Your task to perform on an android device: Do I have any events tomorrow? Image 0: 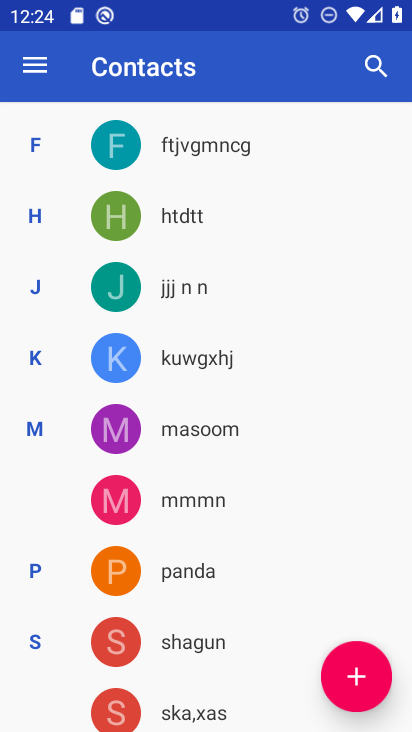
Step 0: press home button
Your task to perform on an android device: Do I have any events tomorrow? Image 1: 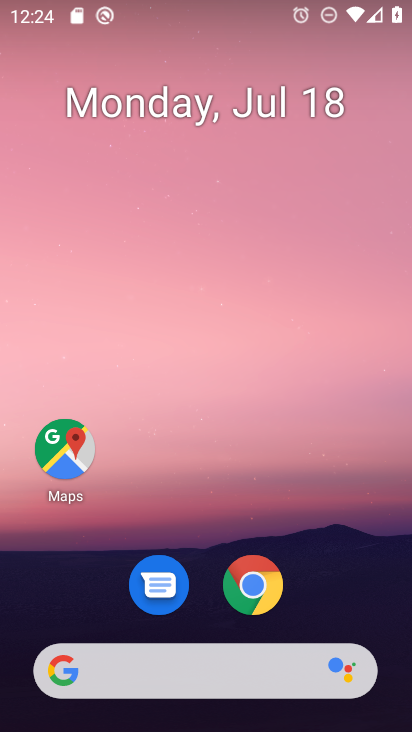
Step 1: drag from (338, 571) to (319, 40)
Your task to perform on an android device: Do I have any events tomorrow? Image 2: 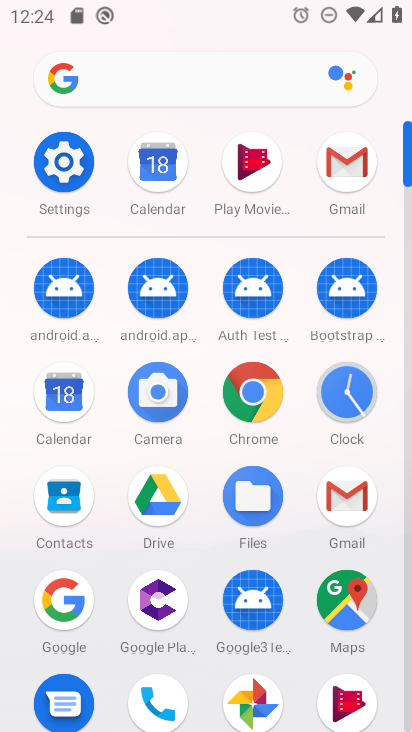
Step 2: click (167, 171)
Your task to perform on an android device: Do I have any events tomorrow? Image 3: 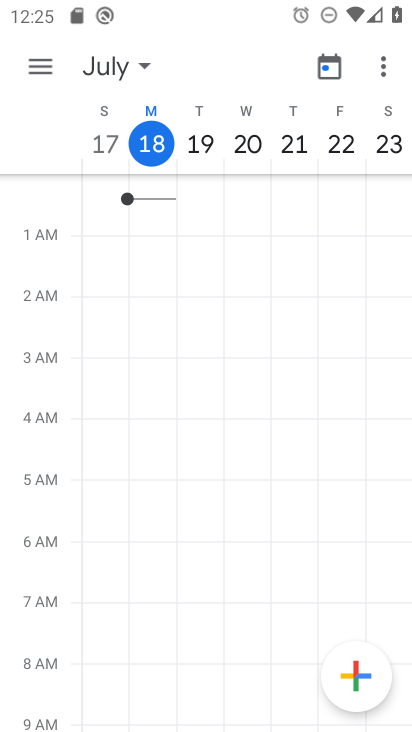
Step 3: task complete